Your task to perform on an android device: Go to location settings Image 0: 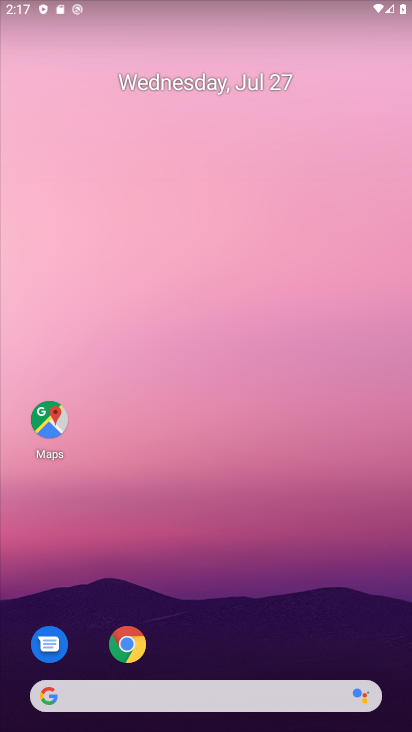
Step 0: drag from (253, 661) to (242, 190)
Your task to perform on an android device: Go to location settings Image 1: 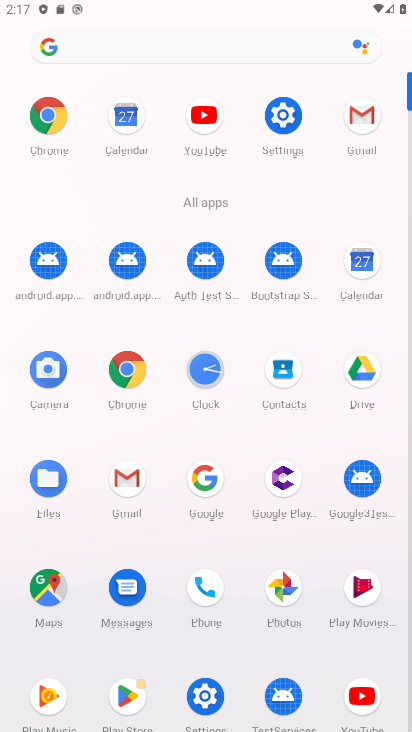
Step 1: click (287, 107)
Your task to perform on an android device: Go to location settings Image 2: 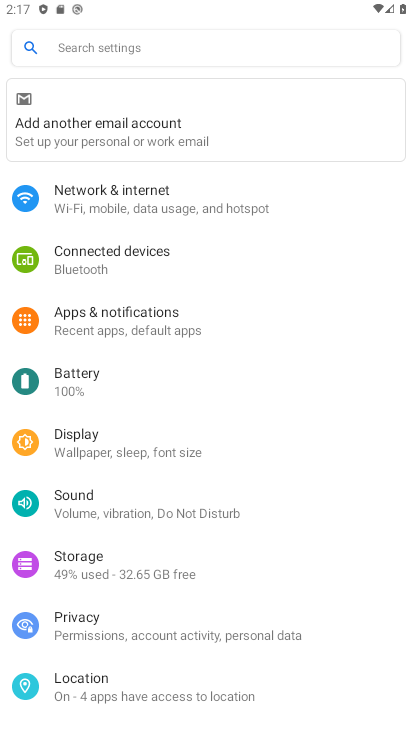
Step 2: click (232, 693)
Your task to perform on an android device: Go to location settings Image 3: 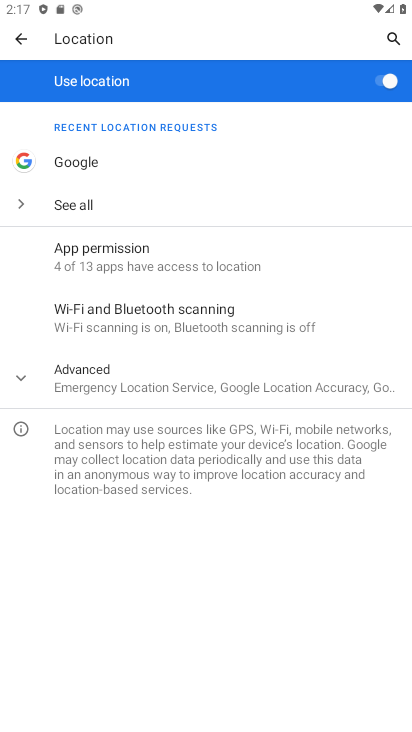
Step 3: task complete